Your task to perform on an android device: turn off notifications in google photos Image 0: 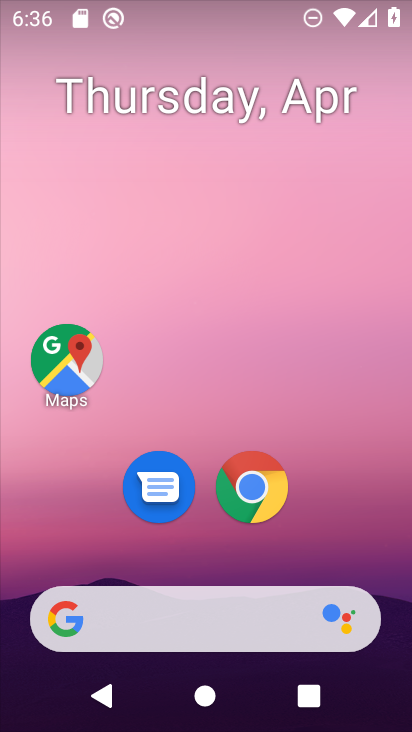
Step 0: drag from (331, 512) to (341, 91)
Your task to perform on an android device: turn off notifications in google photos Image 1: 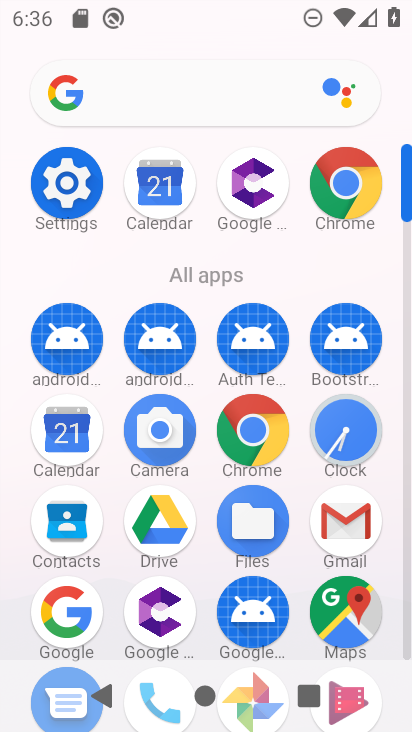
Step 1: click (408, 546)
Your task to perform on an android device: turn off notifications in google photos Image 2: 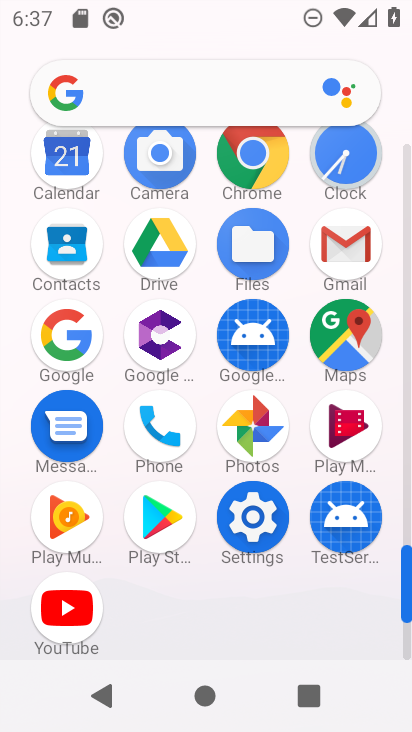
Step 2: click (265, 435)
Your task to perform on an android device: turn off notifications in google photos Image 3: 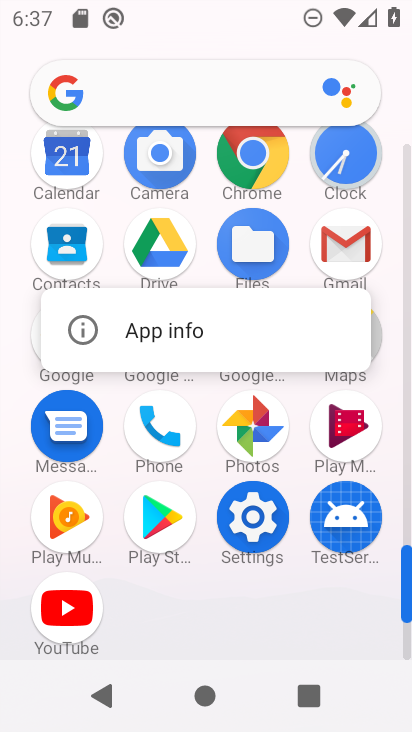
Step 3: click (260, 337)
Your task to perform on an android device: turn off notifications in google photos Image 4: 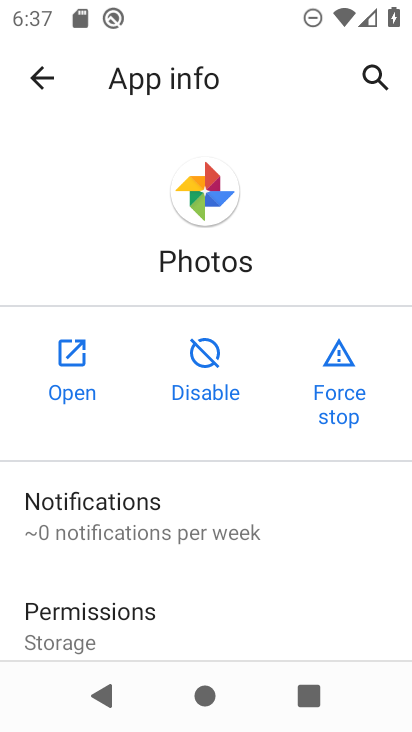
Step 4: click (243, 495)
Your task to perform on an android device: turn off notifications in google photos Image 5: 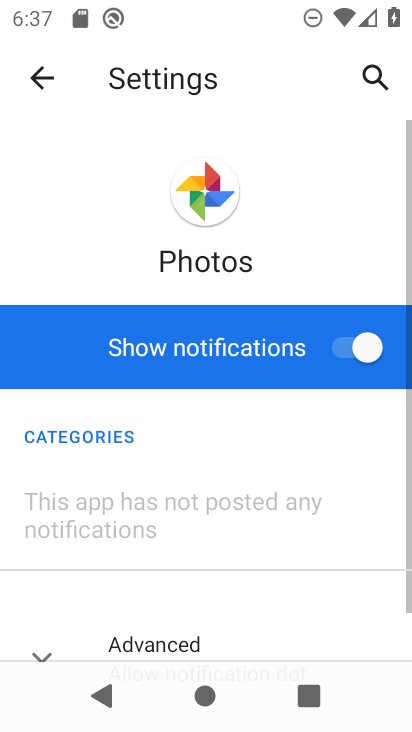
Step 5: click (350, 357)
Your task to perform on an android device: turn off notifications in google photos Image 6: 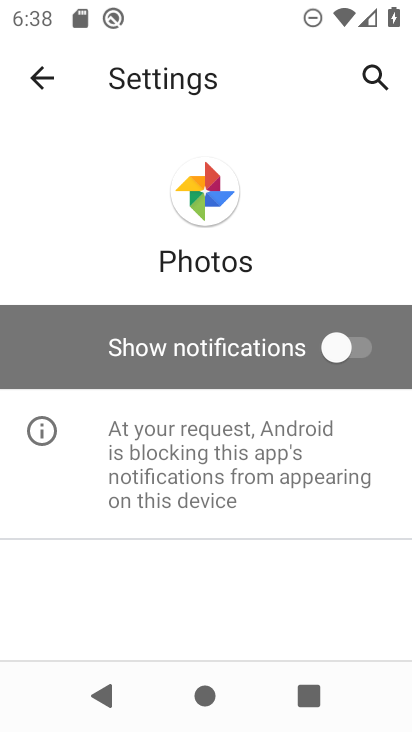
Step 6: task complete